Your task to perform on an android device: turn notification dots on Image 0: 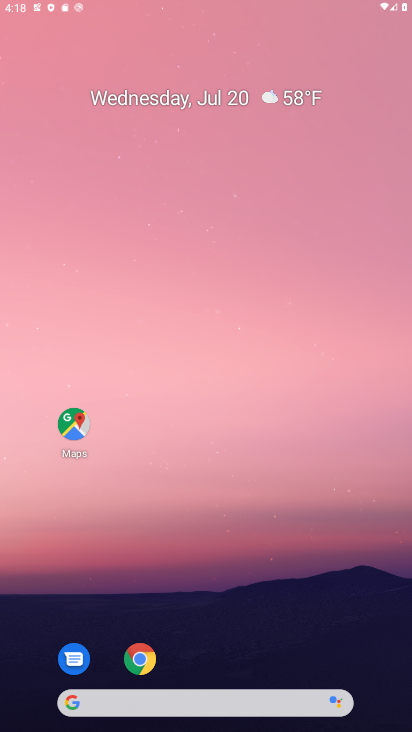
Step 0: click (279, 53)
Your task to perform on an android device: turn notification dots on Image 1: 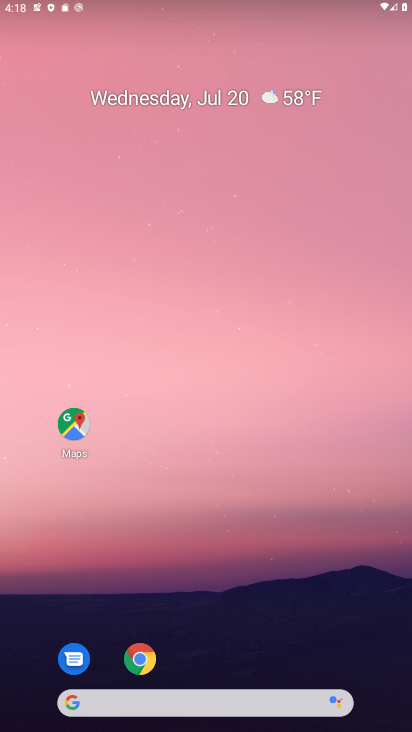
Step 1: click (281, 51)
Your task to perform on an android device: turn notification dots on Image 2: 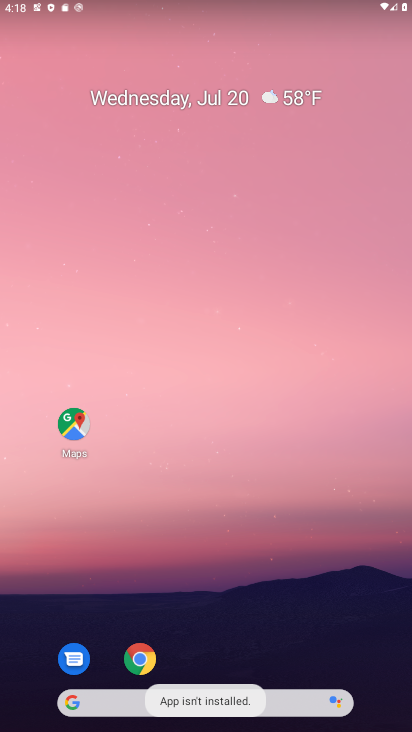
Step 2: drag from (202, 686) to (182, 94)
Your task to perform on an android device: turn notification dots on Image 3: 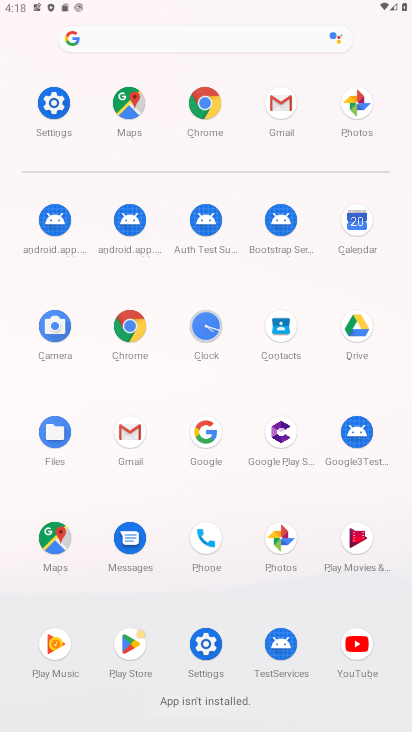
Step 3: click (202, 635)
Your task to perform on an android device: turn notification dots on Image 4: 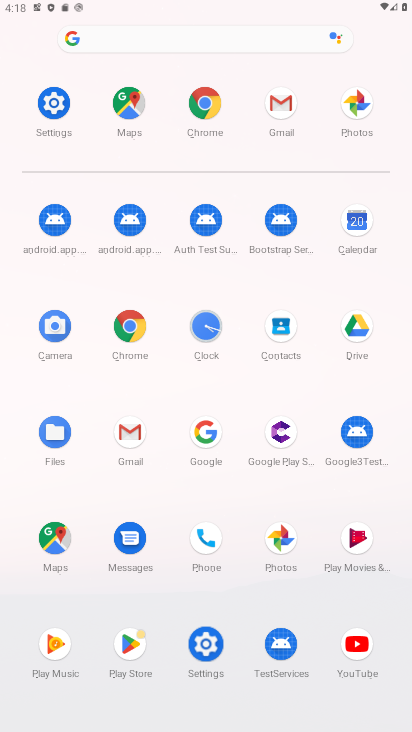
Step 4: click (206, 633)
Your task to perform on an android device: turn notification dots on Image 5: 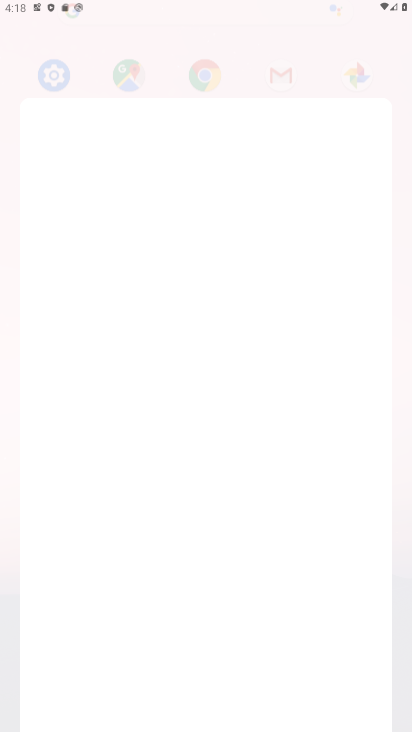
Step 5: click (214, 629)
Your task to perform on an android device: turn notification dots on Image 6: 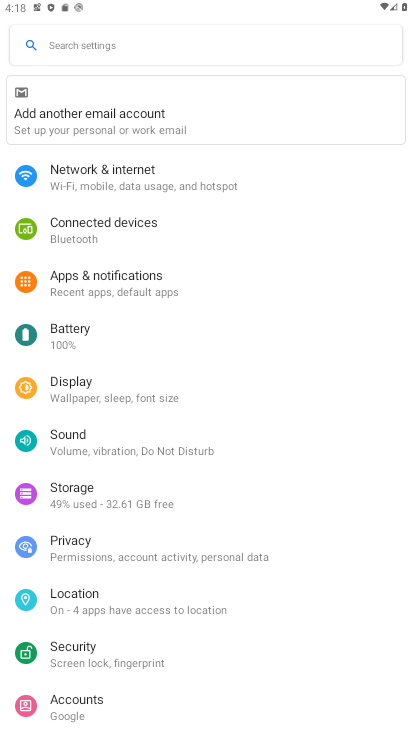
Step 6: click (118, 280)
Your task to perform on an android device: turn notification dots on Image 7: 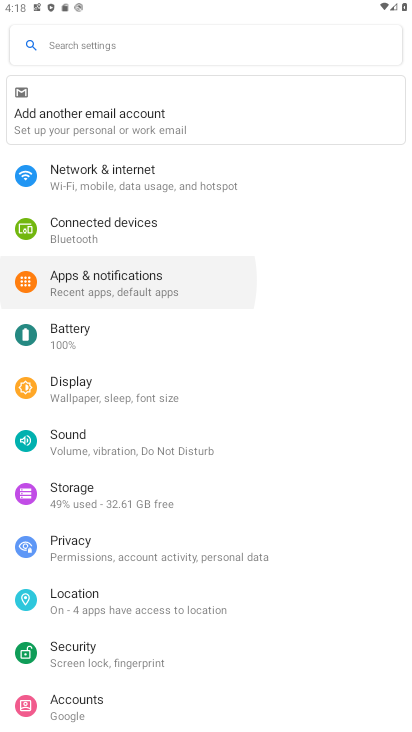
Step 7: click (120, 280)
Your task to perform on an android device: turn notification dots on Image 8: 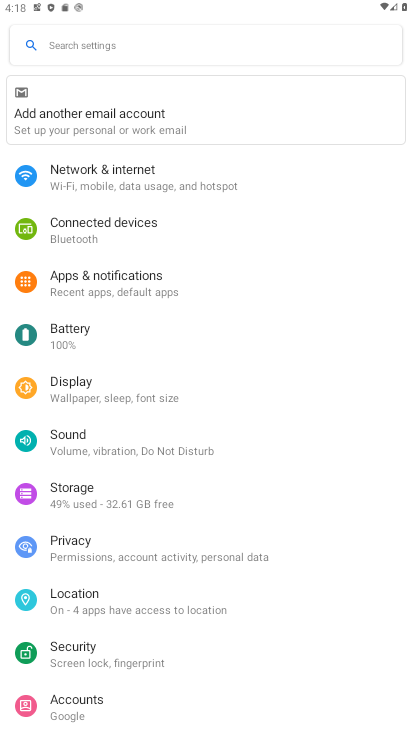
Step 8: click (127, 277)
Your task to perform on an android device: turn notification dots on Image 9: 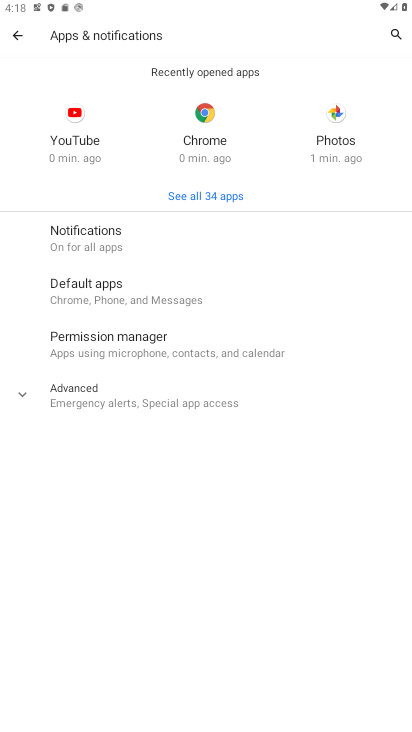
Step 9: click (86, 226)
Your task to perform on an android device: turn notification dots on Image 10: 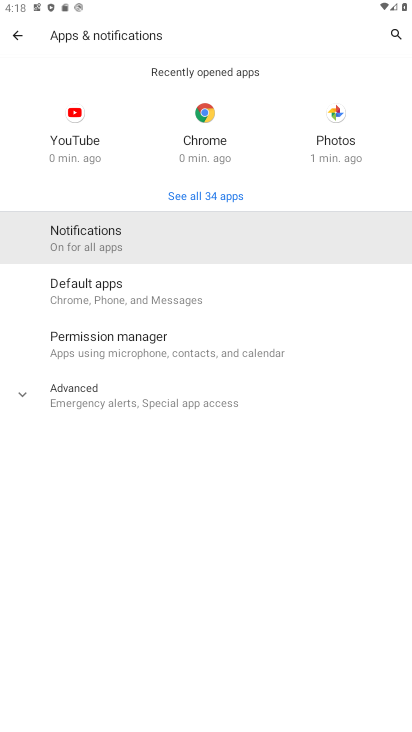
Step 10: click (86, 226)
Your task to perform on an android device: turn notification dots on Image 11: 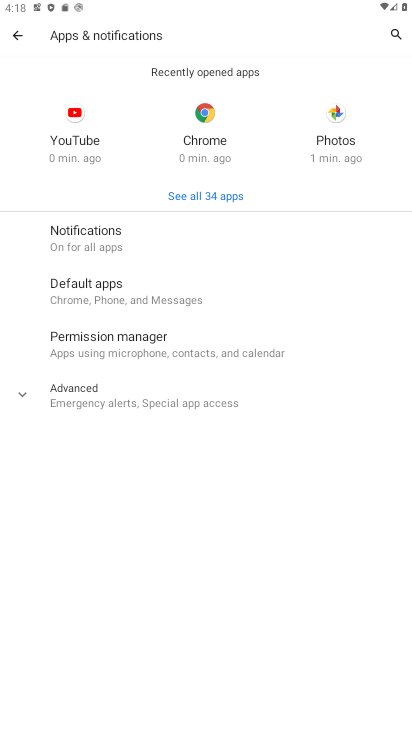
Step 11: click (86, 226)
Your task to perform on an android device: turn notification dots on Image 12: 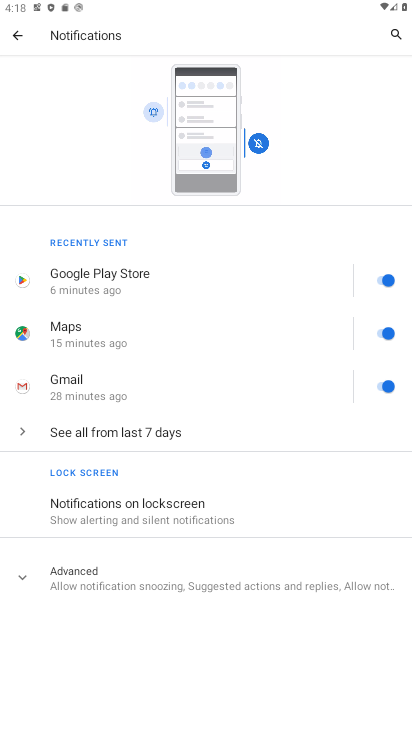
Step 12: click (95, 576)
Your task to perform on an android device: turn notification dots on Image 13: 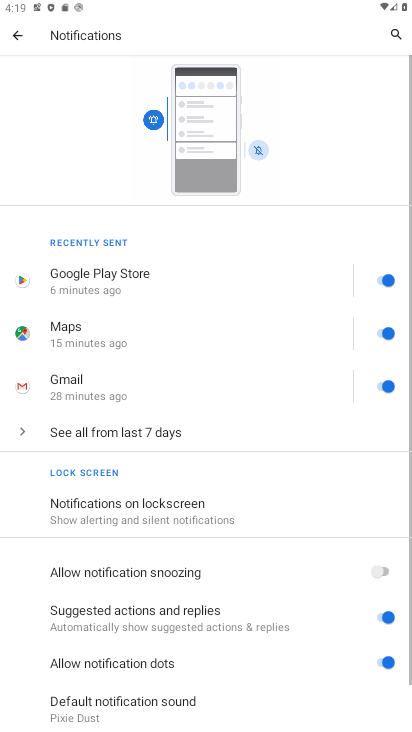
Step 13: task complete